Your task to perform on an android device: Show the shopping cart on target.com. Add duracell triple a to the cart on target.com Image 0: 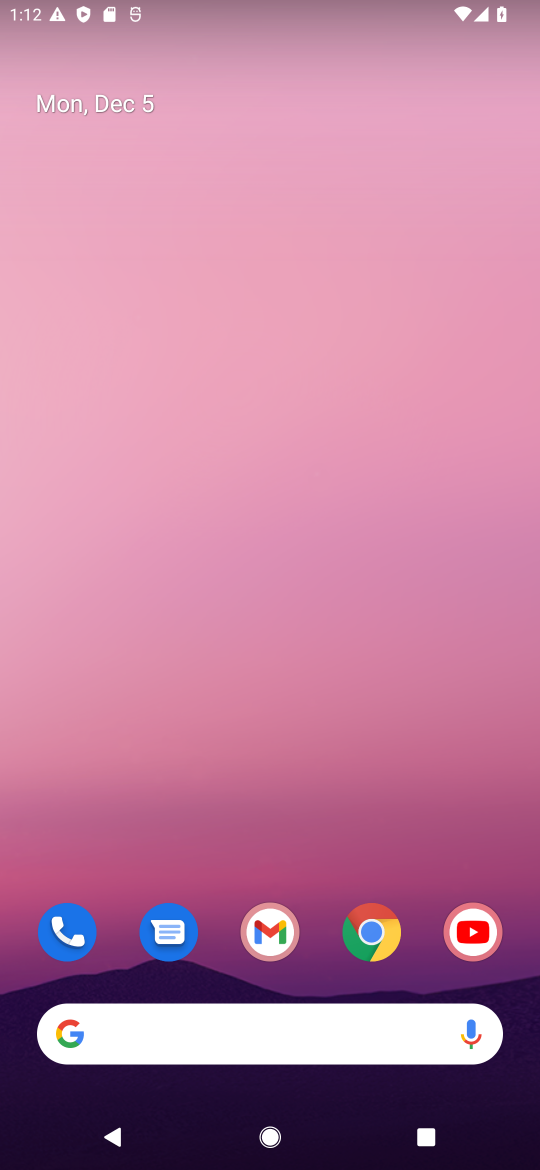
Step 0: task complete